Your task to perform on an android device: open device folders in google photos Image 0: 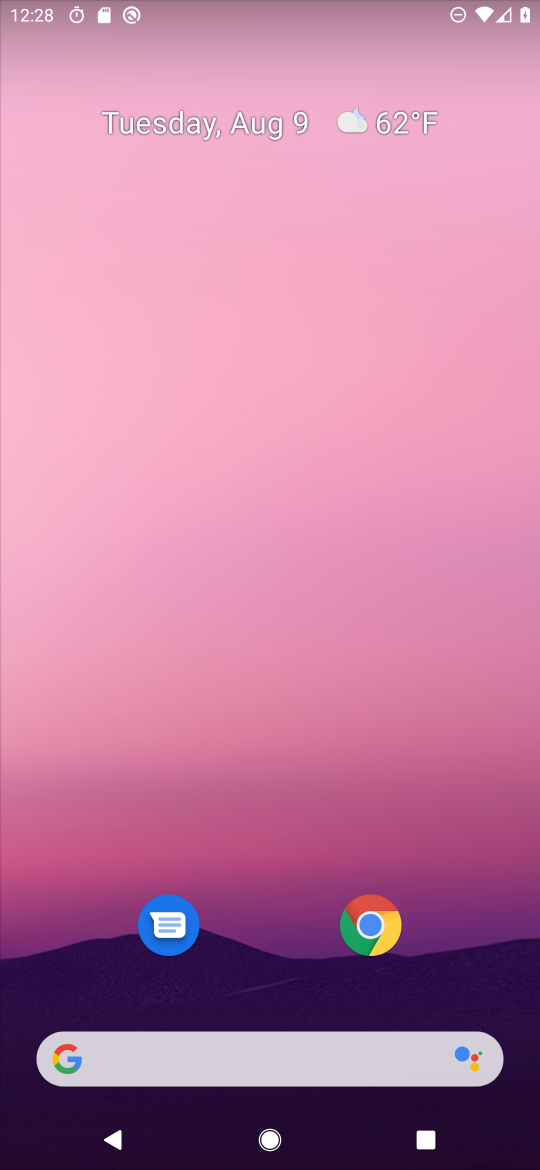
Step 0: drag from (295, 870) to (360, 267)
Your task to perform on an android device: open device folders in google photos Image 1: 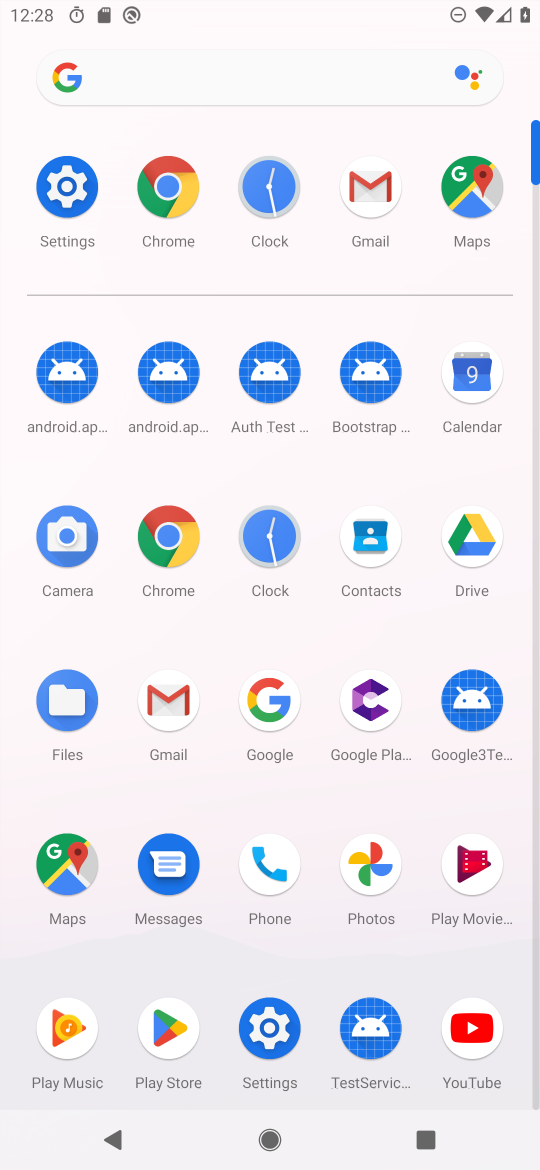
Step 1: click (372, 861)
Your task to perform on an android device: open device folders in google photos Image 2: 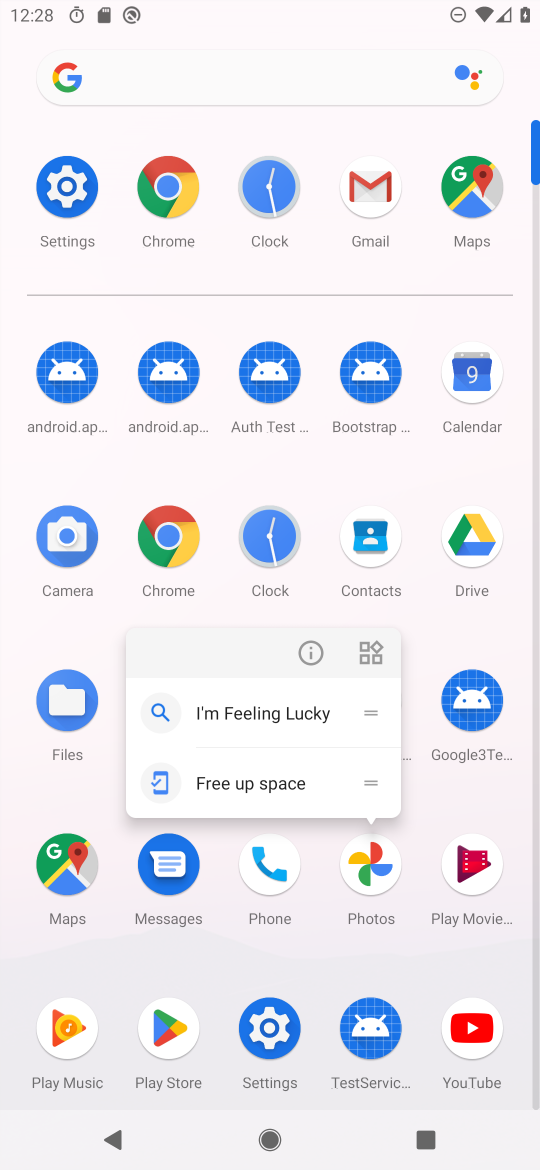
Step 2: click (372, 858)
Your task to perform on an android device: open device folders in google photos Image 3: 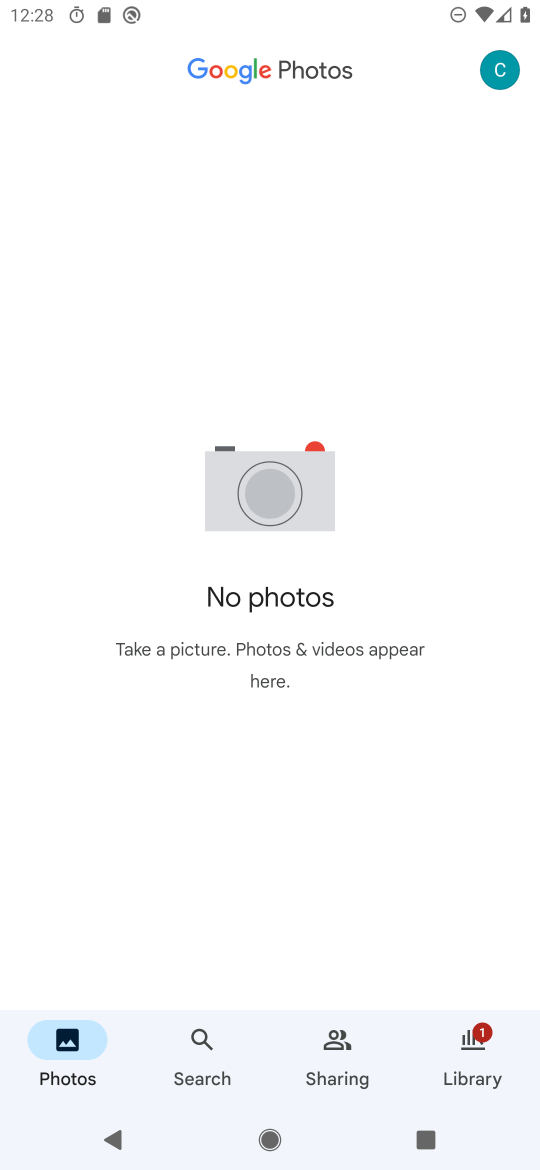
Step 3: click (492, 65)
Your task to perform on an android device: open device folders in google photos Image 4: 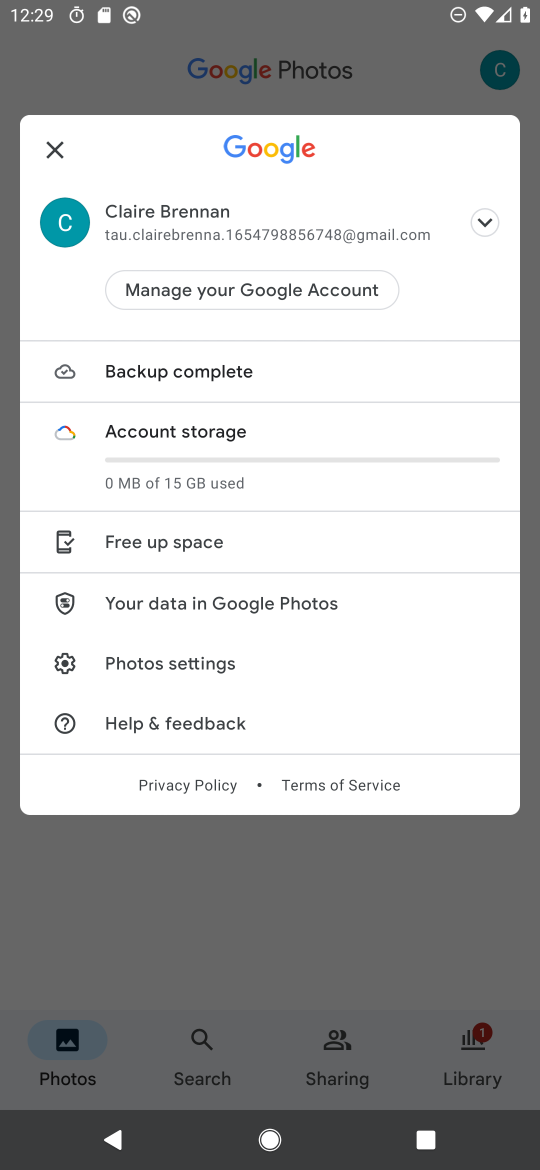
Step 4: click (107, 937)
Your task to perform on an android device: open device folders in google photos Image 5: 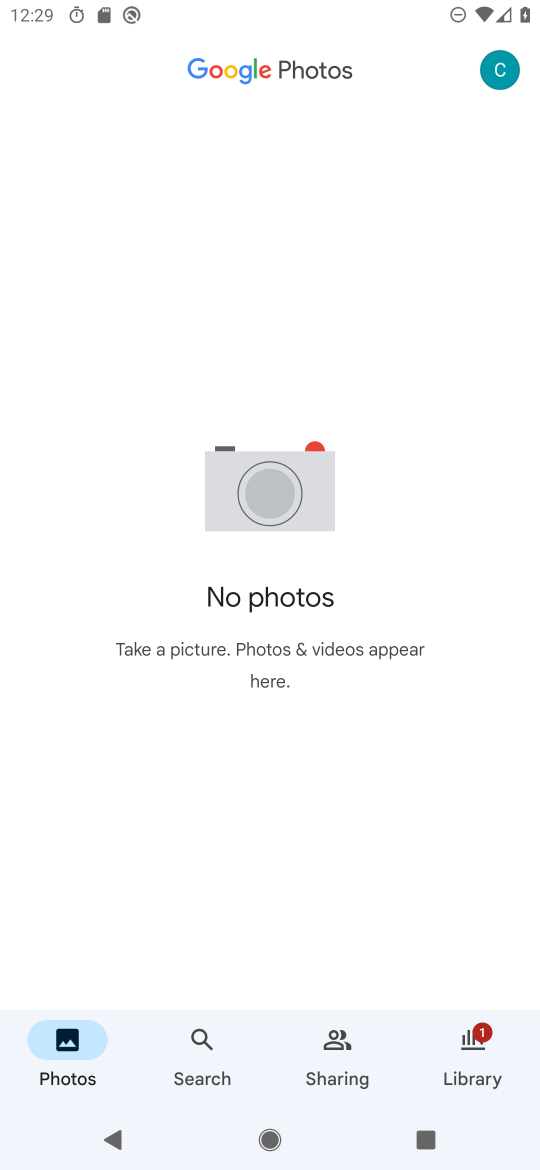
Step 5: click (471, 1062)
Your task to perform on an android device: open device folders in google photos Image 6: 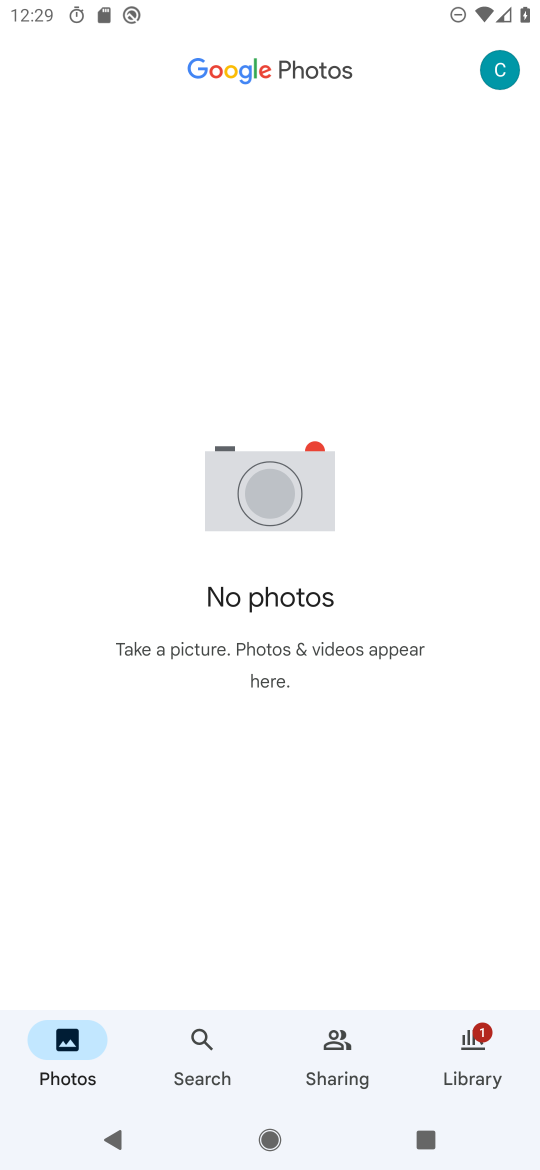
Step 6: click (471, 1062)
Your task to perform on an android device: open device folders in google photos Image 7: 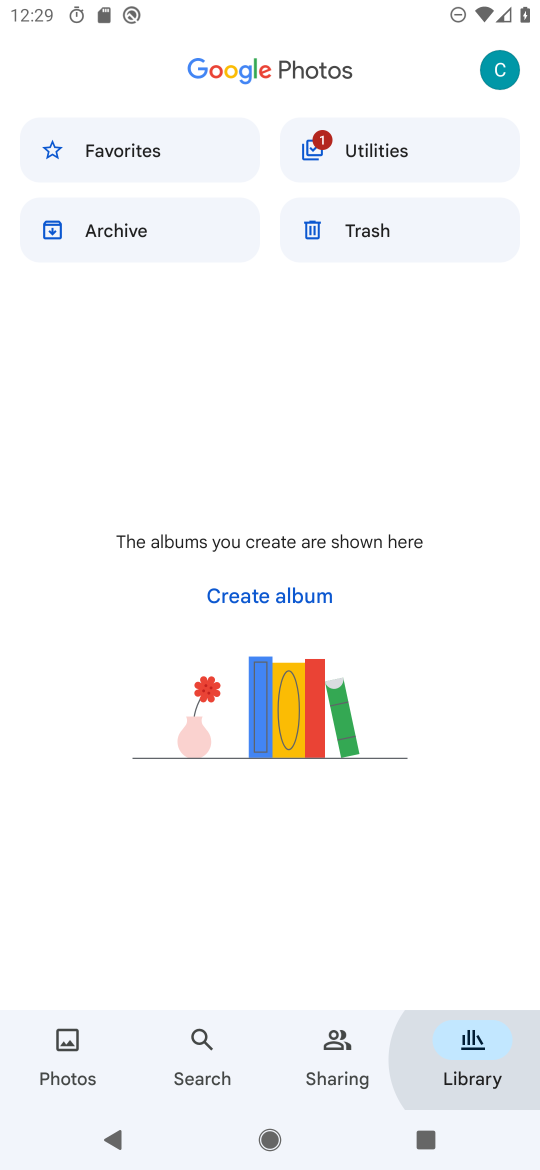
Step 7: click (471, 1062)
Your task to perform on an android device: open device folders in google photos Image 8: 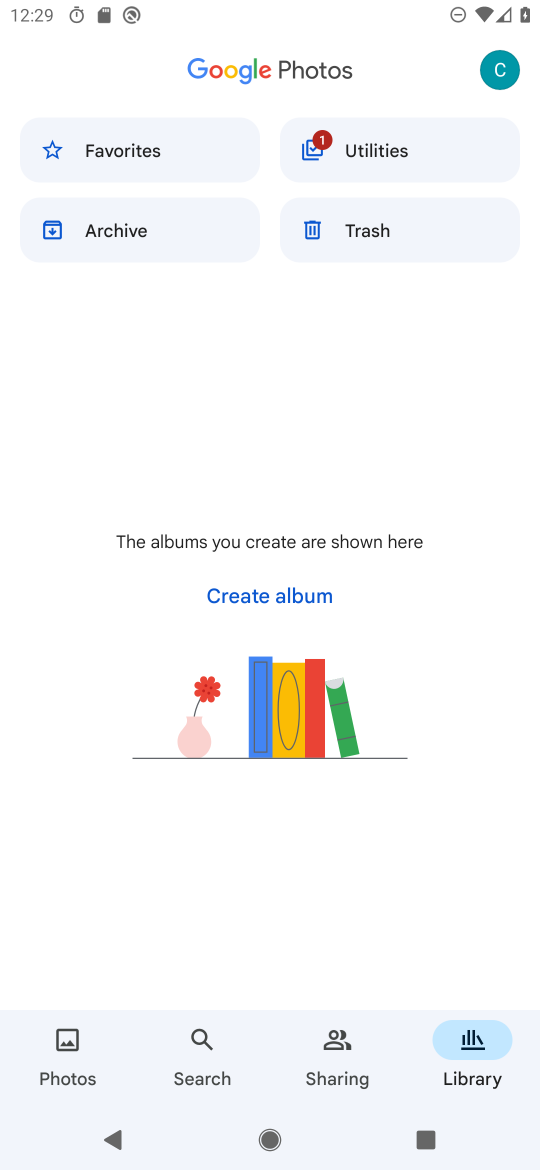
Step 8: click (471, 1062)
Your task to perform on an android device: open device folders in google photos Image 9: 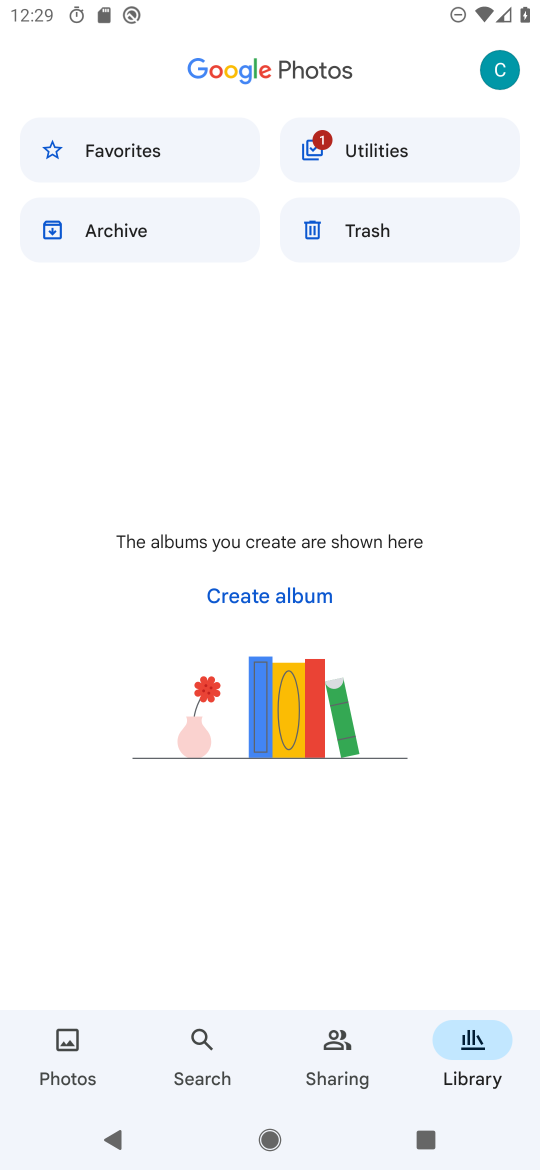
Step 9: click (340, 152)
Your task to perform on an android device: open device folders in google photos Image 10: 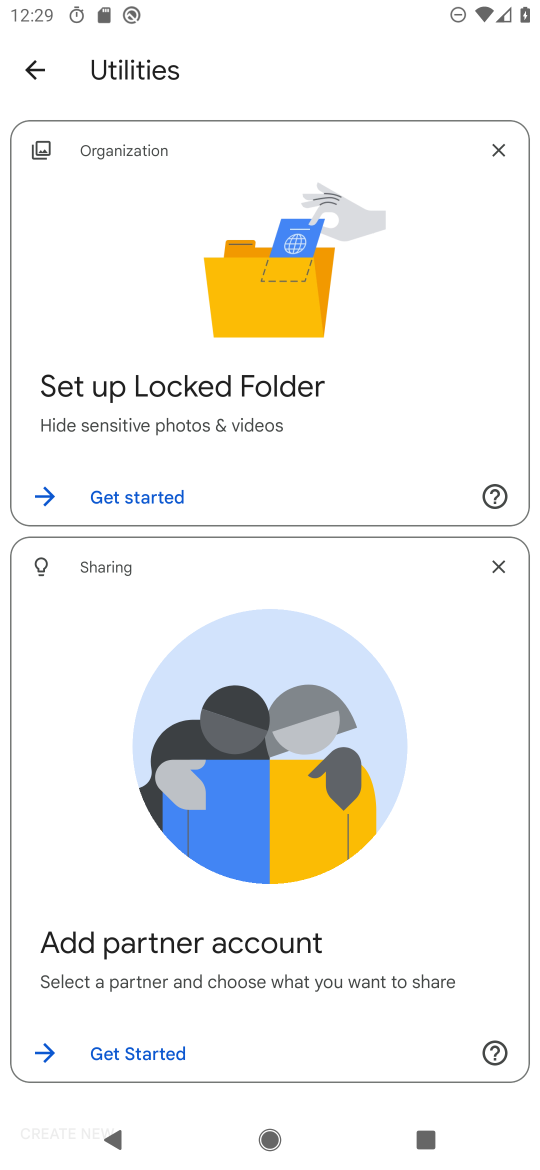
Step 10: drag from (229, 815) to (364, 149)
Your task to perform on an android device: open device folders in google photos Image 11: 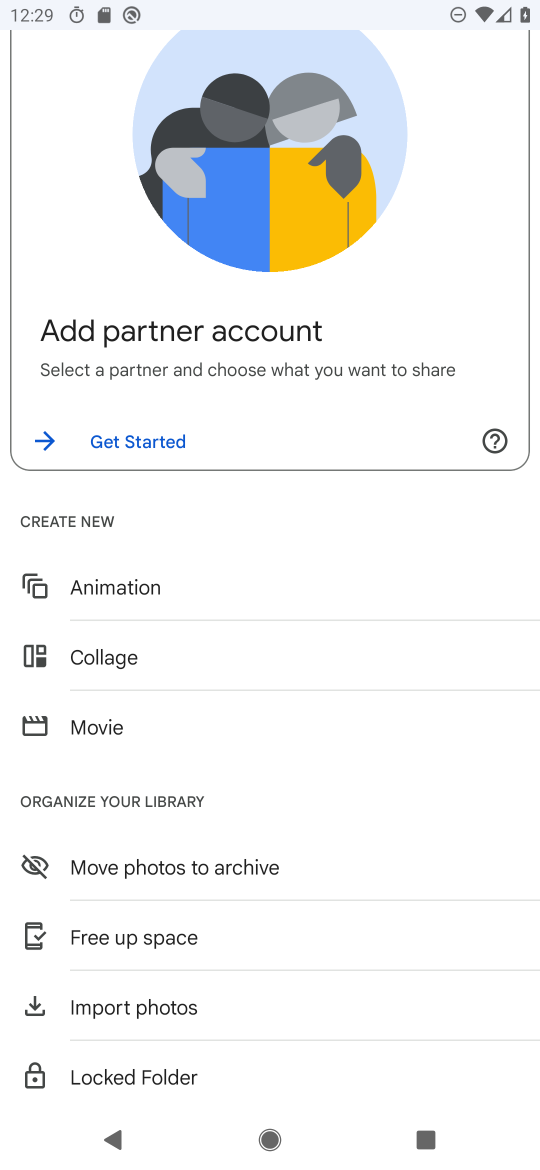
Step 11: press back button
Your task to perform on an android device: open device folders in google photos Image 12: 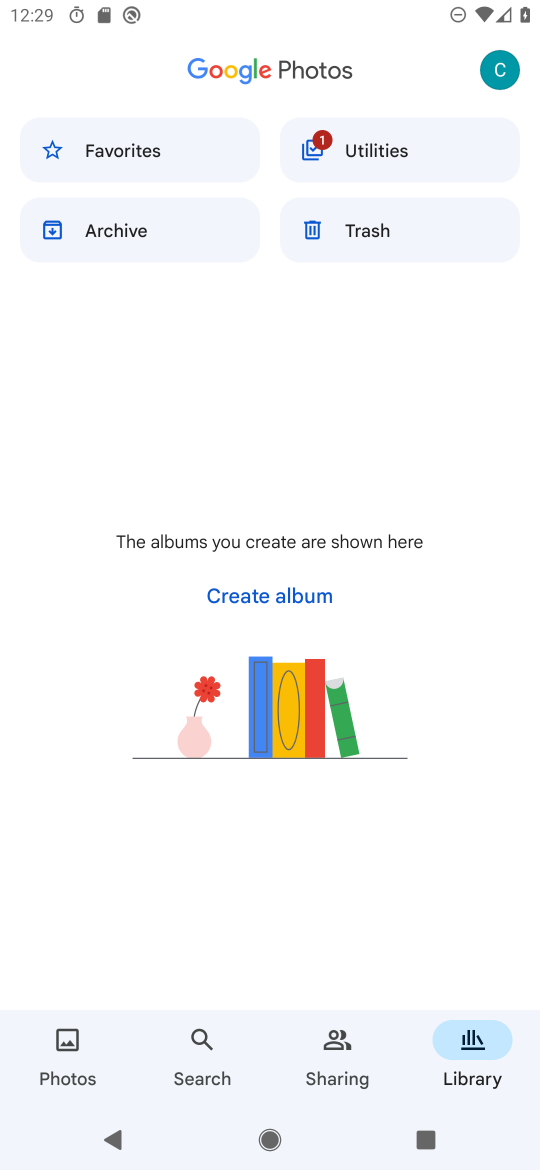
Step 12: click (195, 231)
Your task to perform on an android device: open device folders in google photos Image 13: 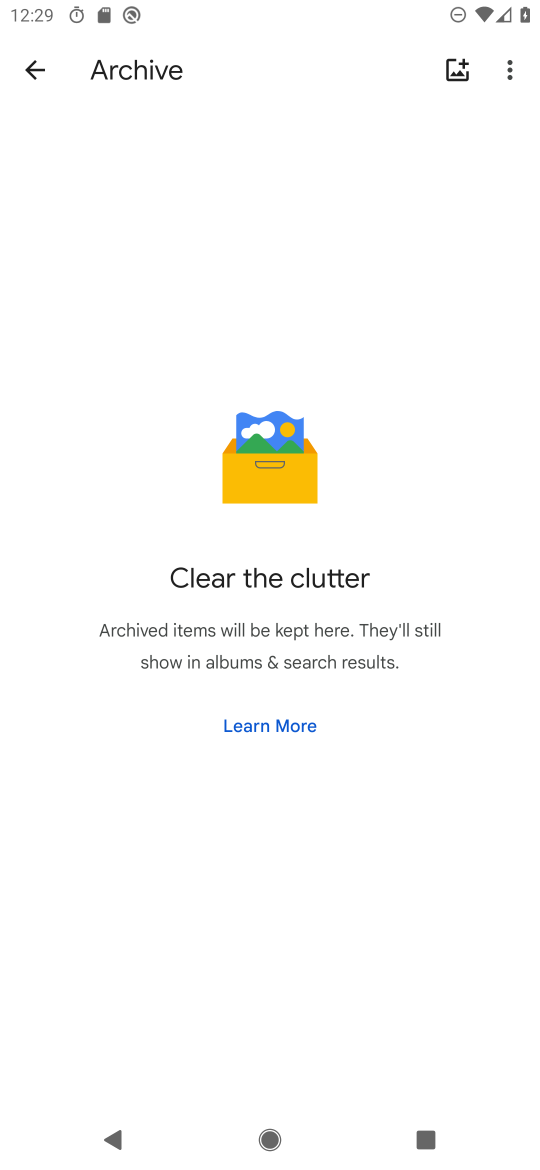
Step 13: click (50, 73)
Your task to perform on an android device: open device folders in google photos Image 14: 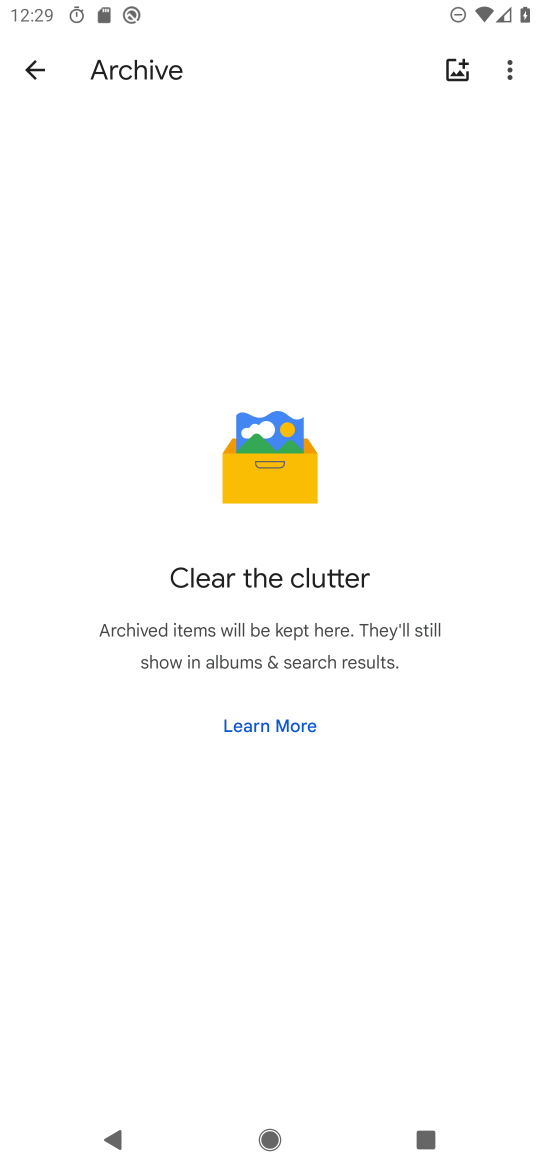
Step 14: click (45, 77)
Your task to perform on an android device: open device folders in google photos Image 15: 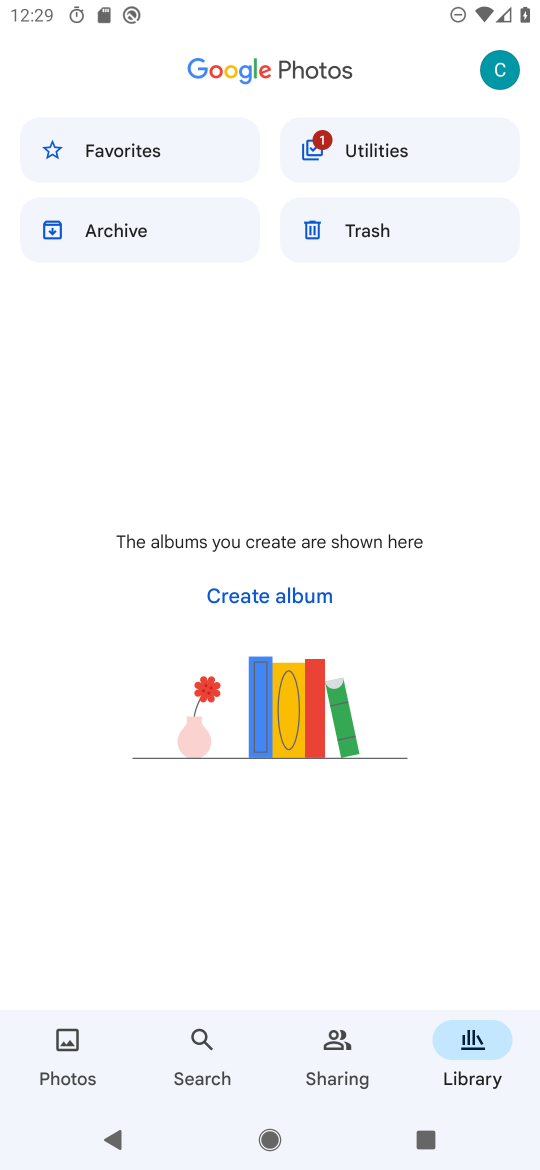
Step 15: click (419, 165)
Your task to perform on an android device: open device folders in google photos Image 16: 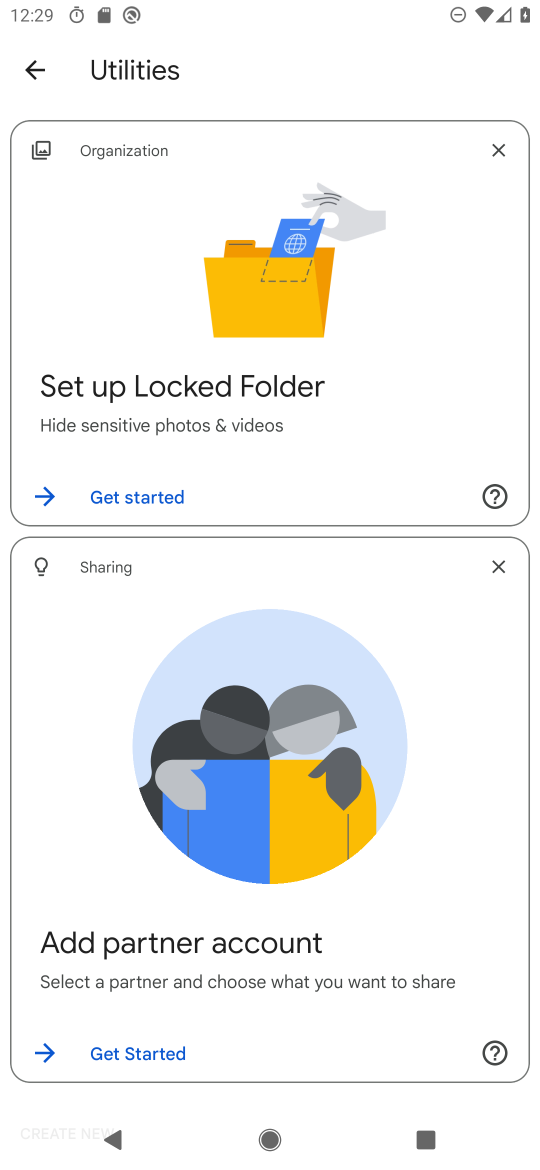
Step 16: task complete